Your task to perform on an android device: What's the weather? Image 0: 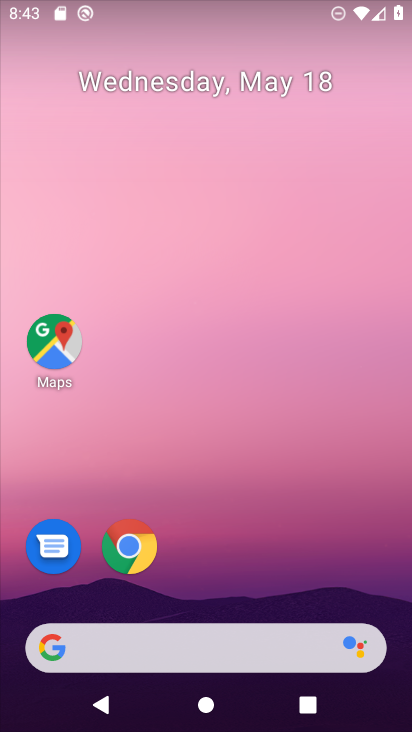
Step 0: drag from (258, 667) to (310, 245)
Your task to perform on an android device: What's the weather? Image 1: 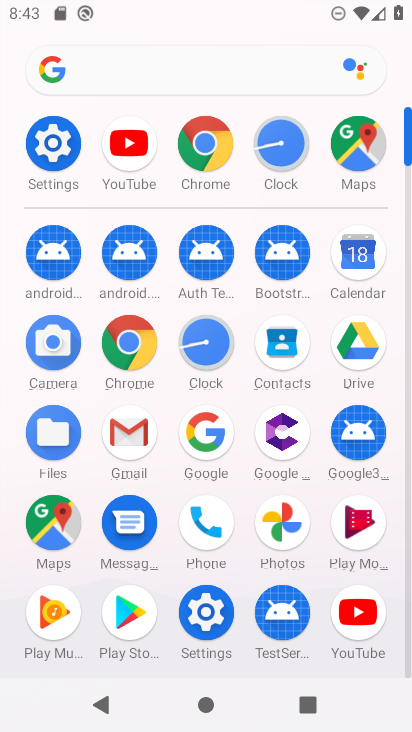
Step 1: click (106, 76)
Your task to perform on an android device: What's the weather? Image 2: 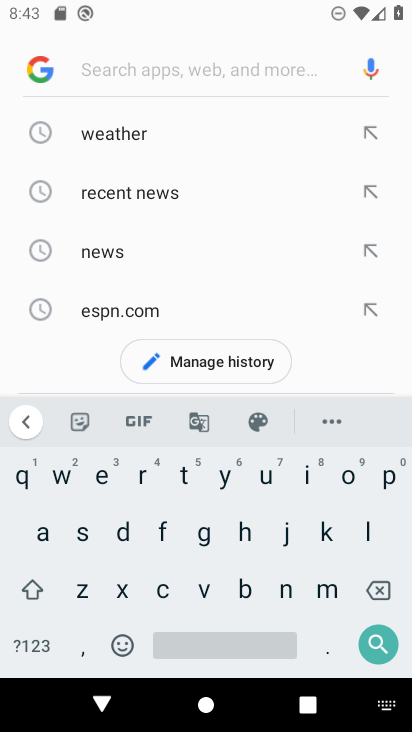
Step 2: click (157, 145)
Your task to perform on an android device: What's the weather? Image 3: 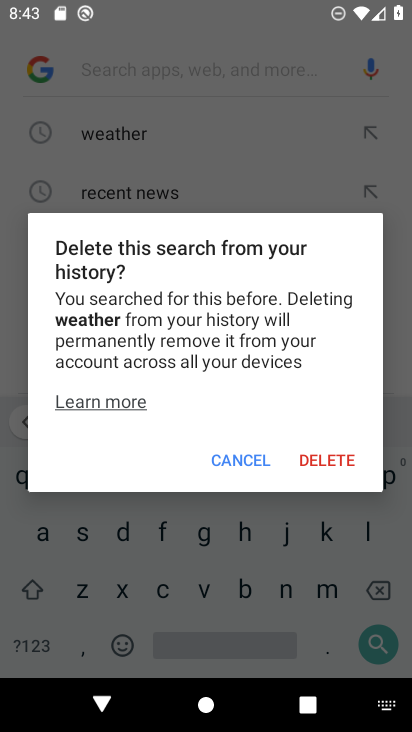
Step 3: click (244, 456)
Your task to perform on an android device: What's the weather? Image 4: 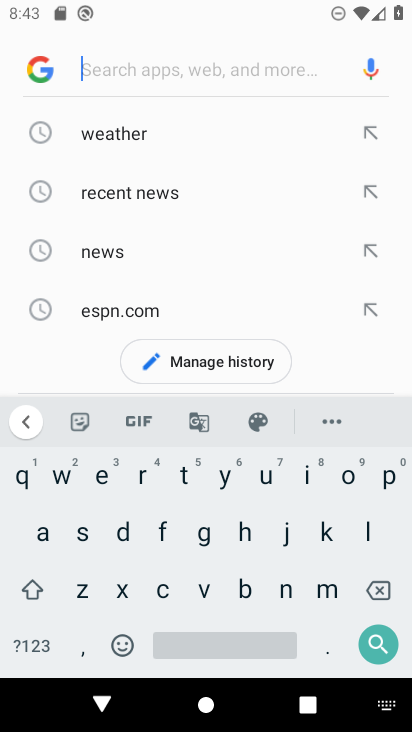
Step 4: click (112, 143)
Your task to perform on an android device: What's the weather? Image 5: 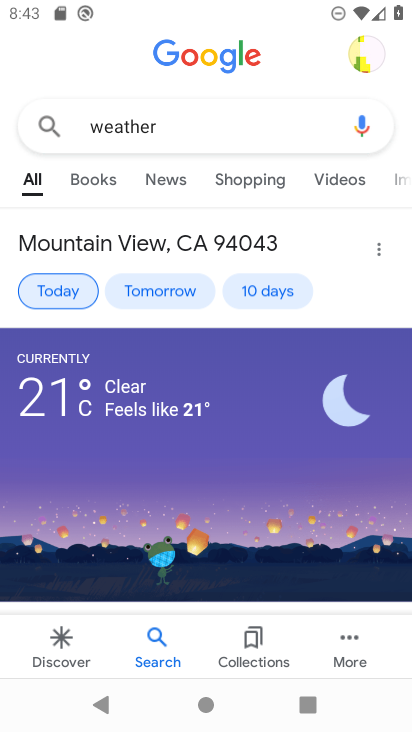
Step 5: task complete